Your task to perform on an android device: When is my next meeting? Image 0: 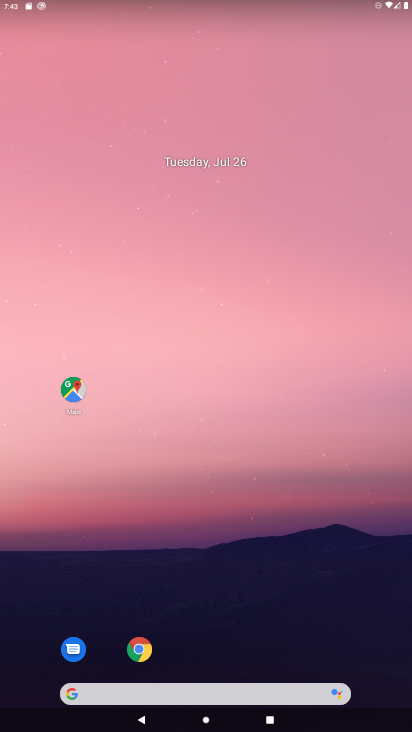
Step 0: drag from (214, 645) to (197, 244)
Your task to perform on an android device: When is my next meeting? Image 1: 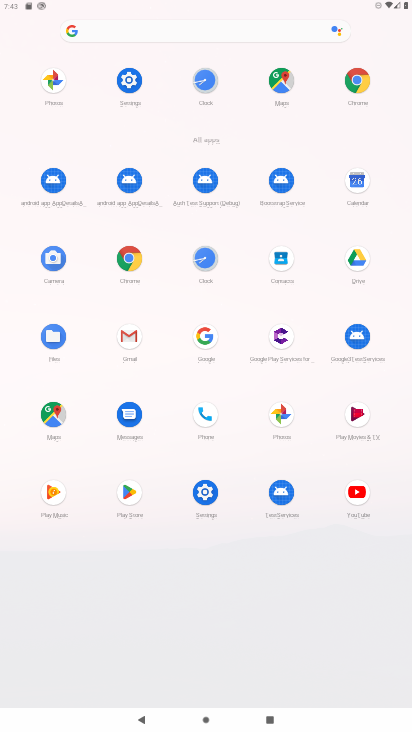
Step 1: click (361, 177)
Your task to perform on an android device: When is my next meeting? Image 2: 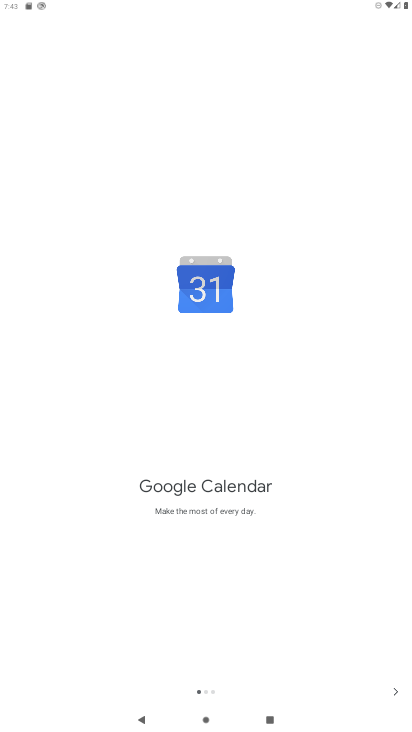
Step 2: click (395, 696)
Your task to perform on an android device: When is my next meeting? Image 3: 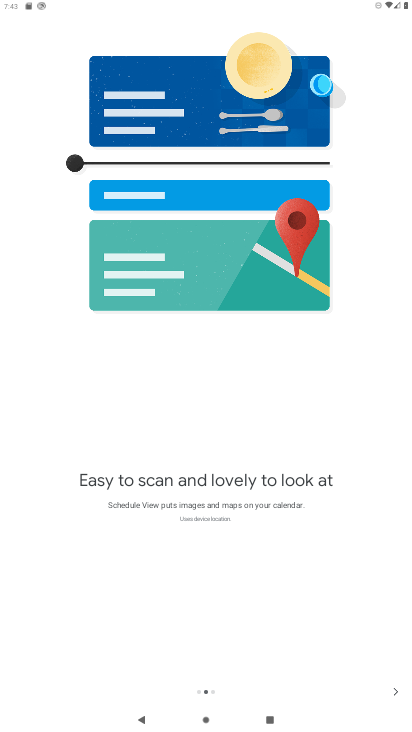
Step 3: click (395, 696)
Your task to perform on an android device: When is my next meeting? Image 4: 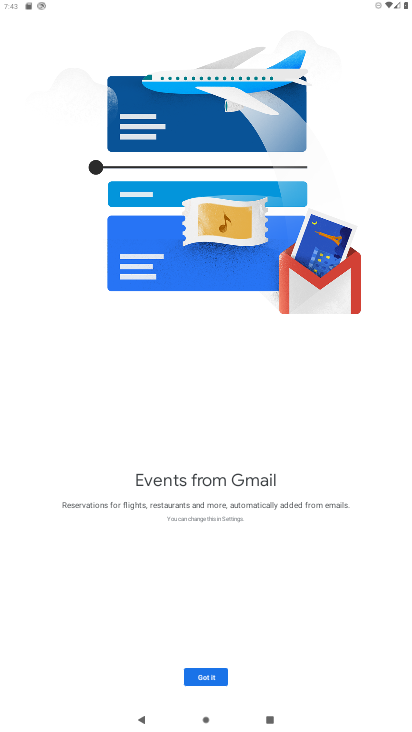
Step 4: click (192, 672)
Your task to perform on an android device: When is my next meeting? Image 5: 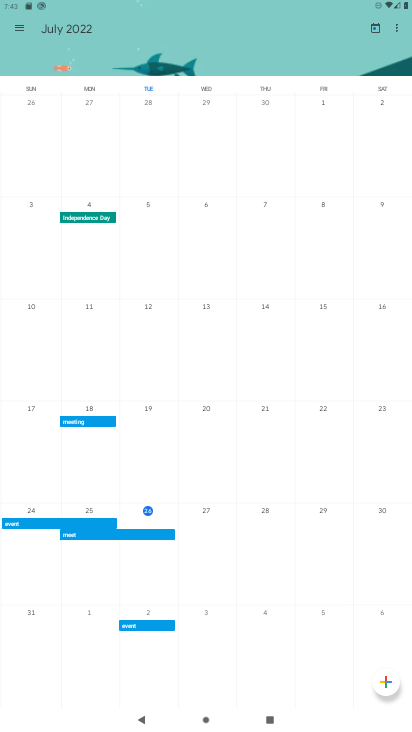
Step 5: drag from (334, 400) to (288, 424)
Your task to perform on an android device: When is my next meeting? Image 6: 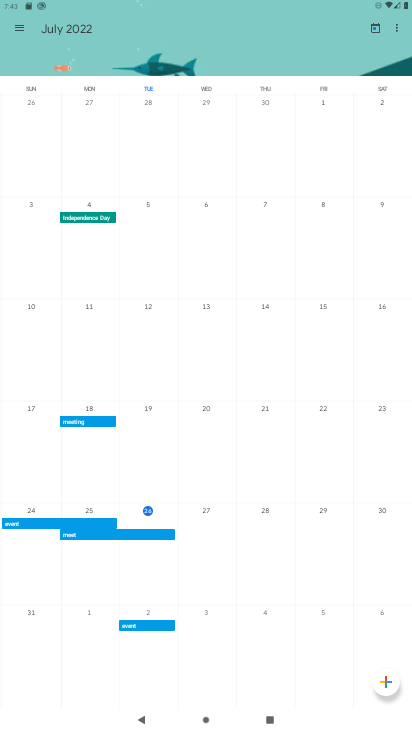
Step 6: click (275, 526)
Your task to perform on an android device: When is my next meeting? Image 7: 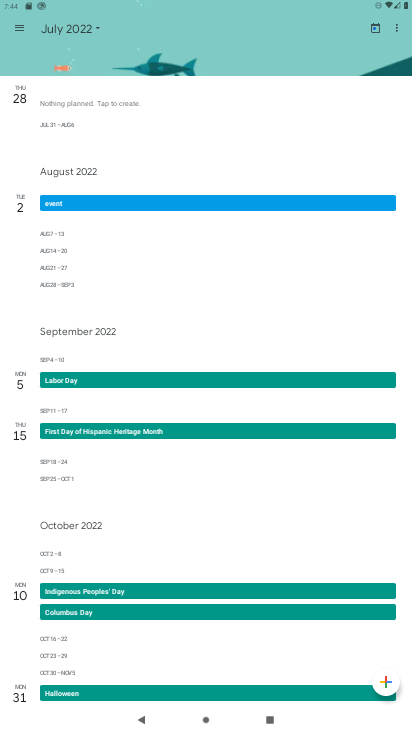
Step 7: task complete